Your task to perform on an android device: open sync settings in chrome Image 0: 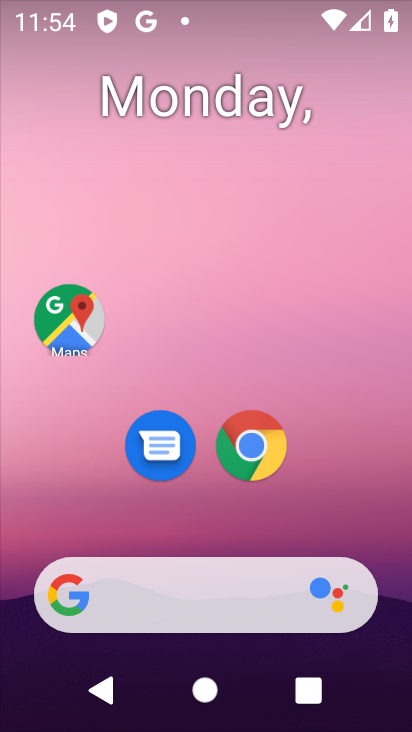
Step 0: click (250, 432)
Your task to perform on an android device: open sync settings in chrome Image 1: 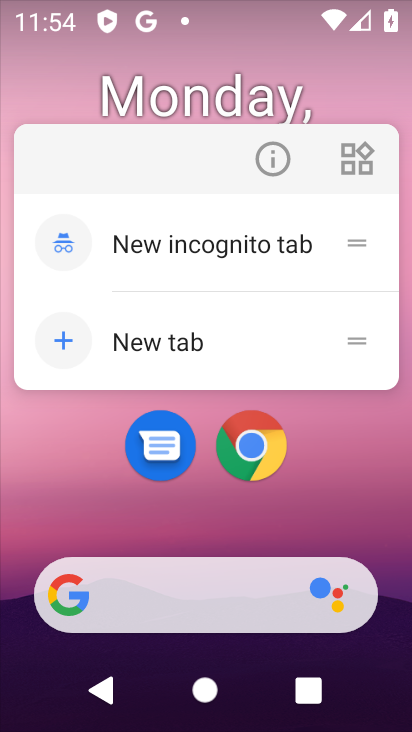
Step 1: click (257, 459)
Your task to perform on an android device: open sync settings in chrome Image 2: 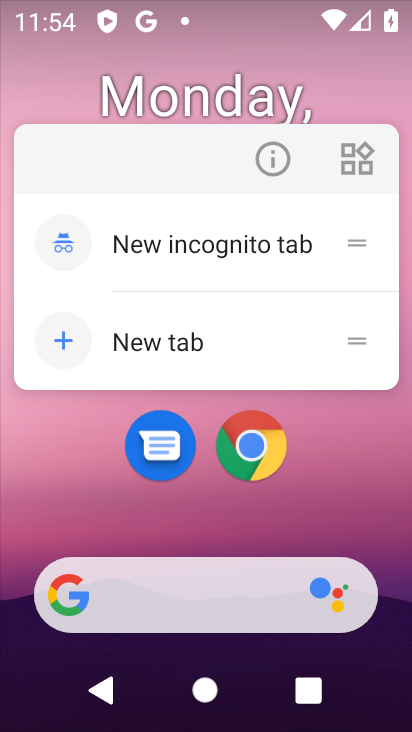
Step 2: click (256, 458)
Your task to perform on an android device: open sync settings in chrome Image 3: 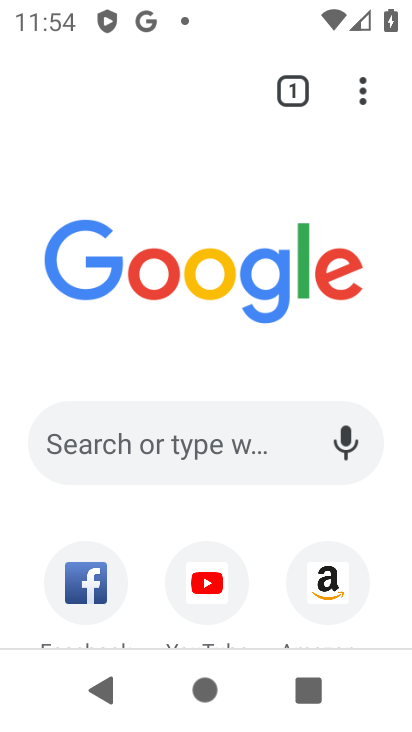
Step 3: drag from (371, 95) to (261, 494)
Your task to perform on an android device: open sync settings in chrome Image 4: 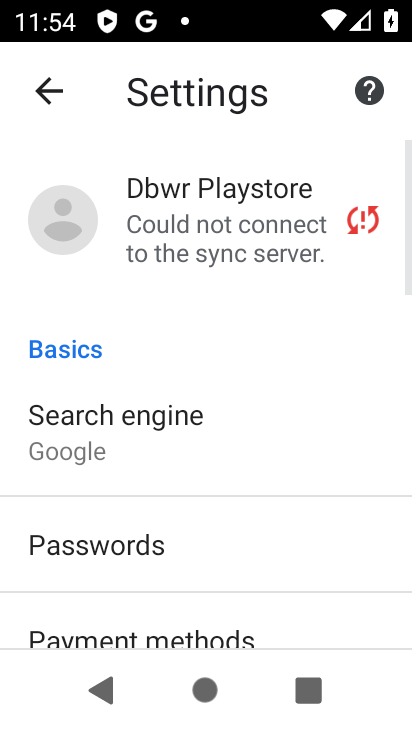
Step 4: click (257, 230)
Your task to perform on an android device: open sync settings in chrome Image 5: 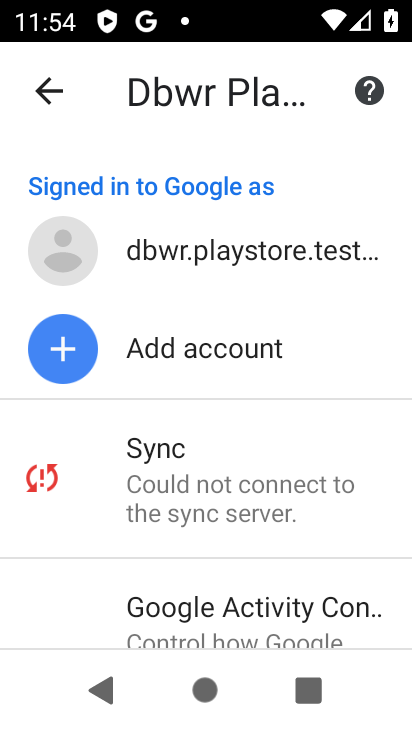
Step 5: click (250, 474)
Your task to perform on an android device: open sync settings in chrome Image 6: 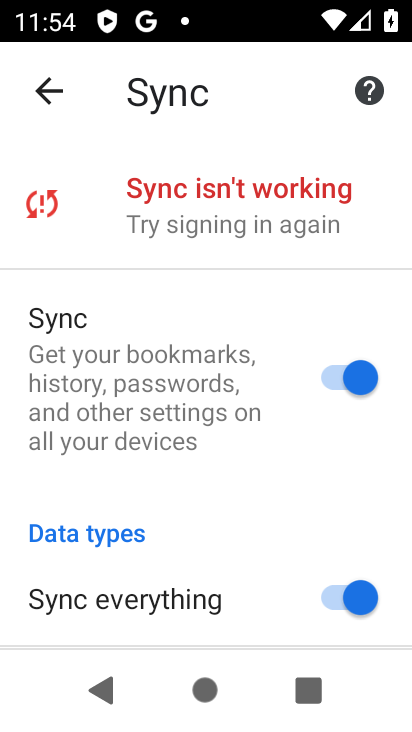
Step 6: task complete